Your task to perform on an android device: change keyboard looks Image 0: 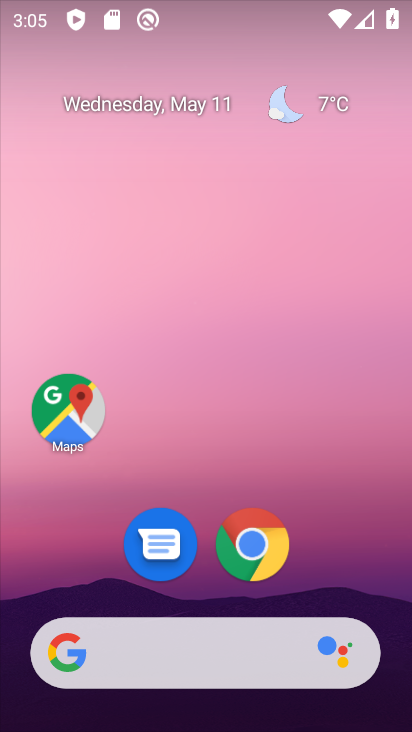
Step 0: drag from (206, 545) to (274, 88)
Your task to perform on an android device: change keyboard looks Image 1: 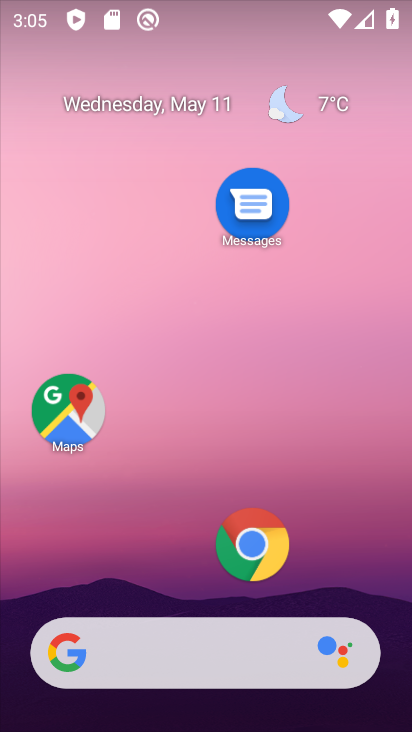
Step 1: drag from (172, 523) to (247, 124)
Your task to perform on an android device: change keyboard looks Image 2: 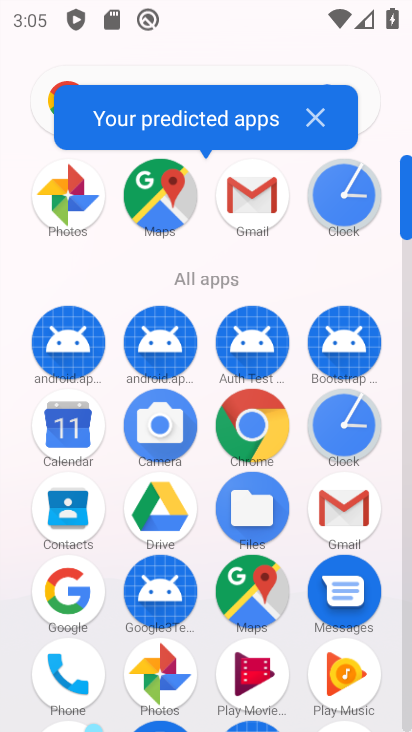
Step 2: drag from (240, 615) to (347, 108)
Your task to perform on an android device: change keyboard looks Image 3: 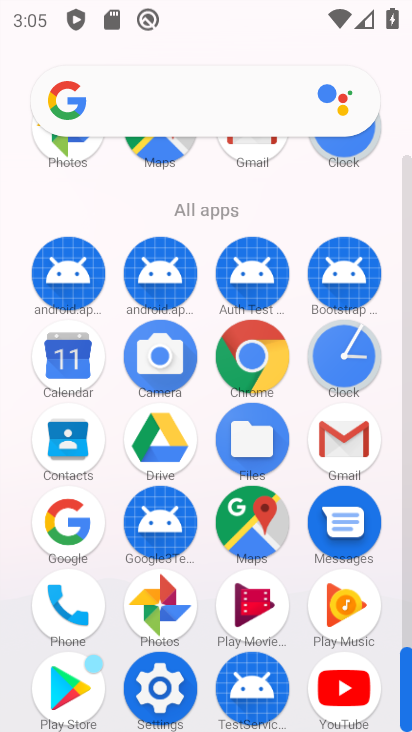
Step 3: click (141, 684)
Your task to perform on an android device: change keyboard looks Image 4: 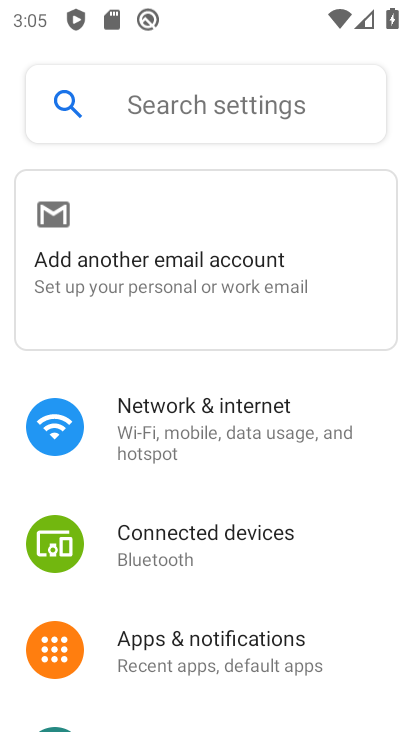
Step 4: drag from (233, 563) to (360, 51)
Your task to perform on an android device: change keyboard looks Image 5: 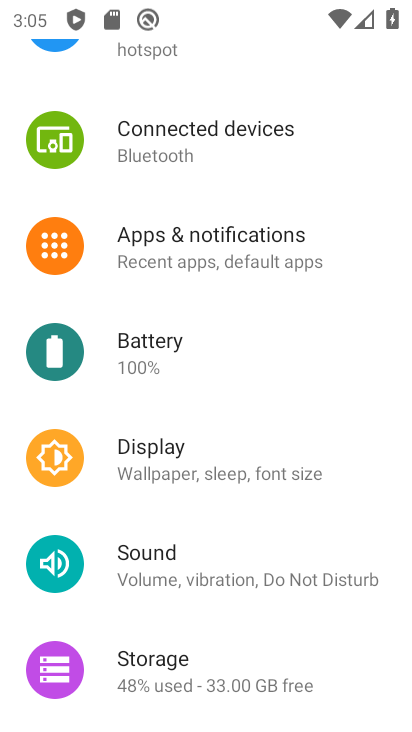
Step 5: drag from (211, 599) to (340, 114)
Your task to perform on an android device: change keyboard looks Image 6: 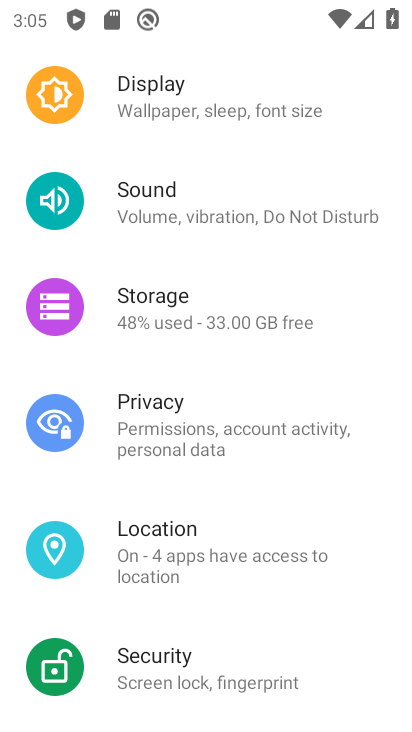
Step 6: drag from (214, 538) to (384, 26)
Your task to perform on an android device: change keyboard looks Image 7: 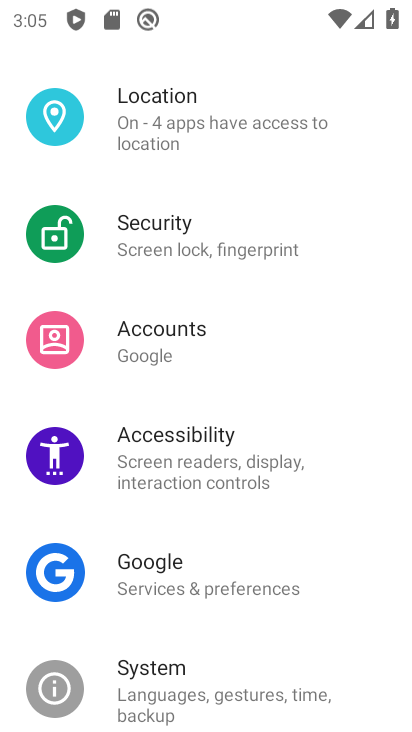
Step 7: click (169, 683)
Your task to perform on an android device: change keyboard looks Image 8: 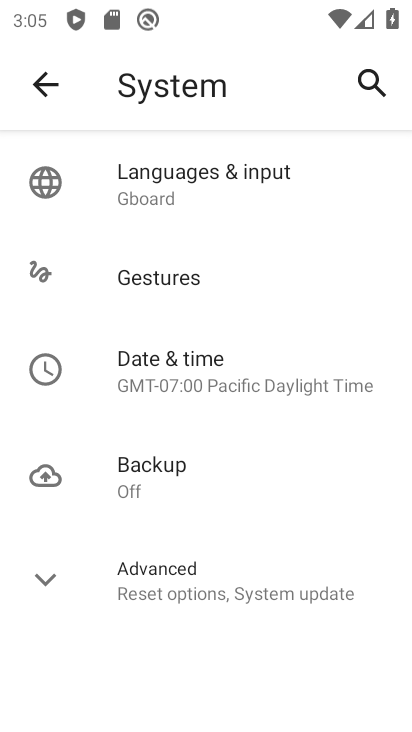
Step 8: click (170, 175)
Your task to perform on an android device: change keyboard looks Image 9: 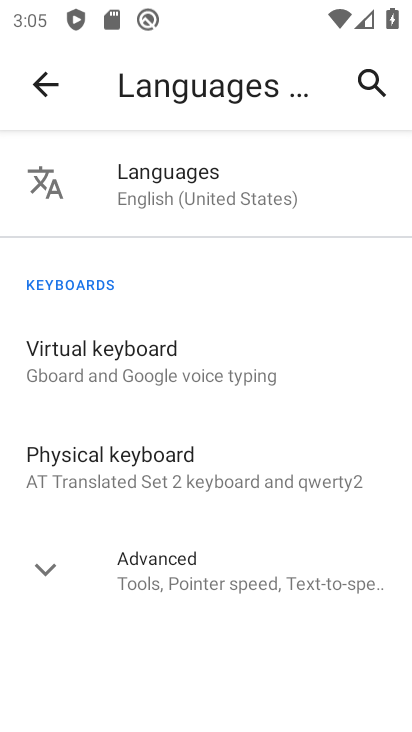
Step 9: click (151, 356)
Your task to perform on an android device: change keyboard looks Image 10: 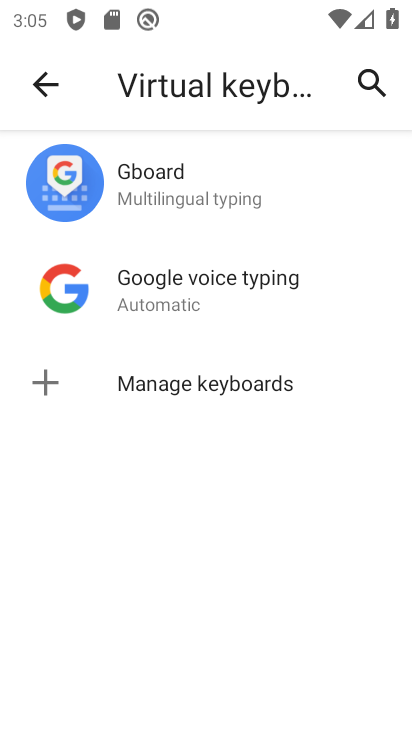
Step 10: click (196, 193)
Your task to perform on an android device: change keyboard looks Image 11: 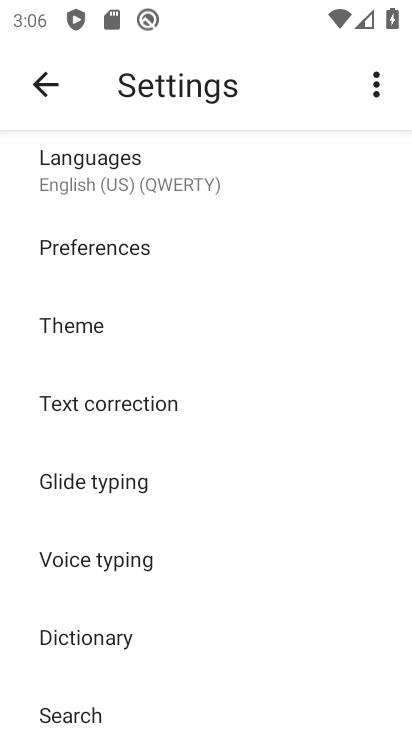
Step 11: click (89, 336)
Your task to perform on an android device: change keyboard looks Image 12: 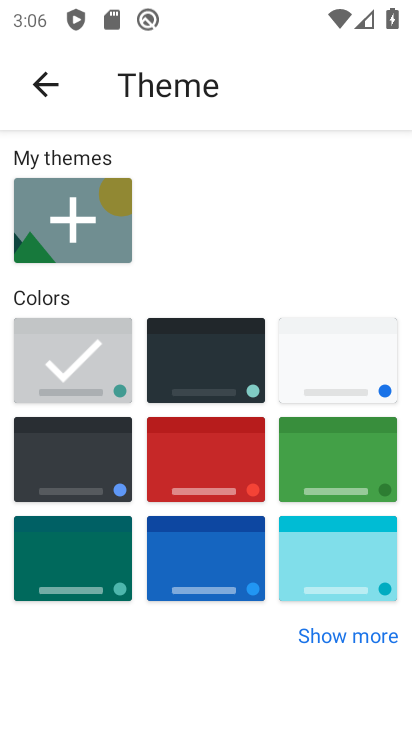
Step 12: click (344, 463)
Your task to perform on an android device: change keyboard looks Image 13: 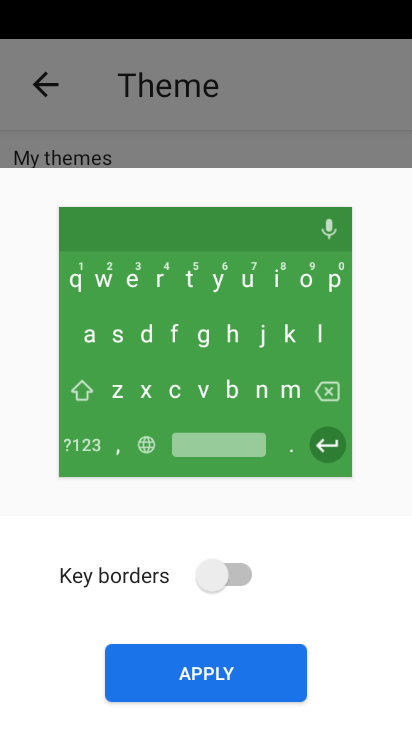
Step 13: click (173, 663)
Your task to perform on an android device: change keyboard looks Image 14: 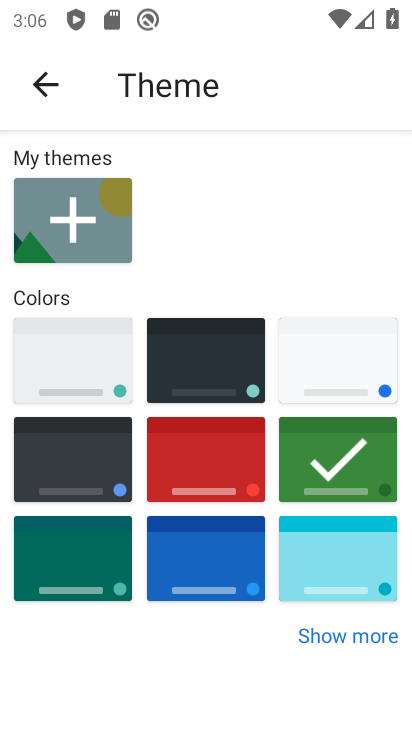
Step 14: task complete